Your task to perform on an android device: turn off location Image 0: 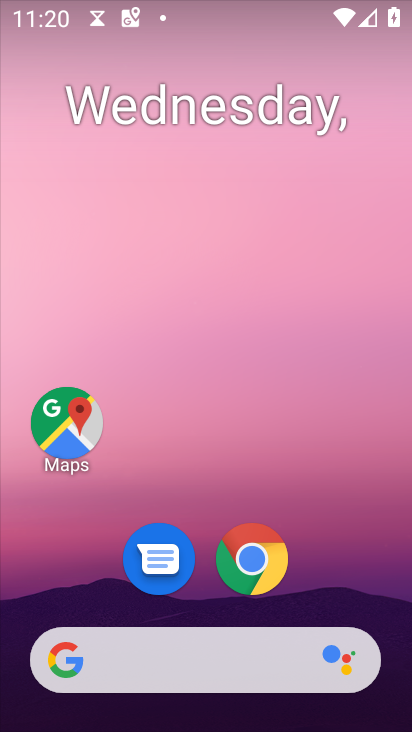
Step 0: drag from (378, 586) to (319, 245)
Your task to perform on an android device: turn off location Image 1: 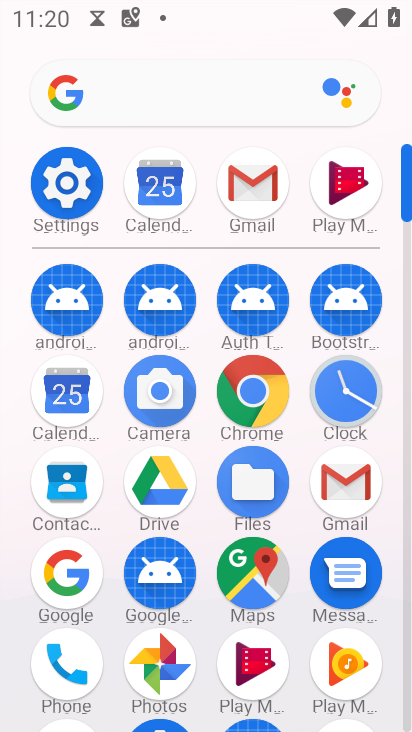
Step 1: click (75, 197)
Your task to perform on an android device: turn off location Image 2: 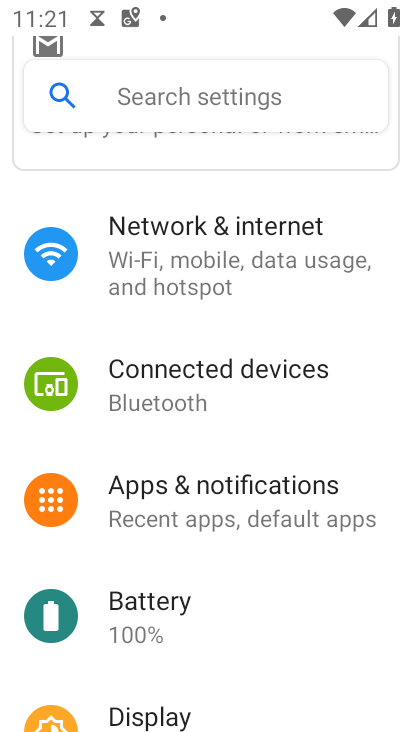
Step 2: drag from (229, 656) to (203, 370)
Your task to perform on an android device: turn off location Image 3: 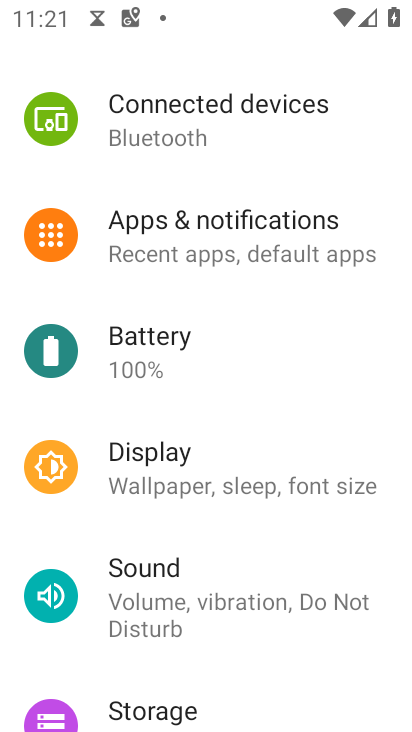
Step 3: drag from (271, 660) to (245, 308)
Your task to perform on an android device: turn off location Image 4: 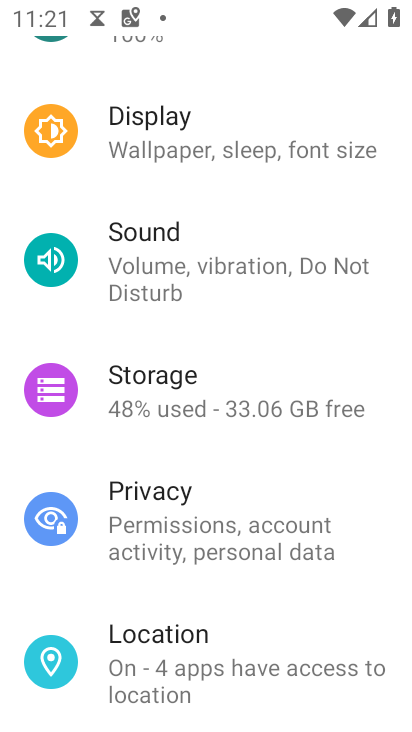
Step 4: click (295, 643)
Your task to perform on an android device: turn off location Image 5: 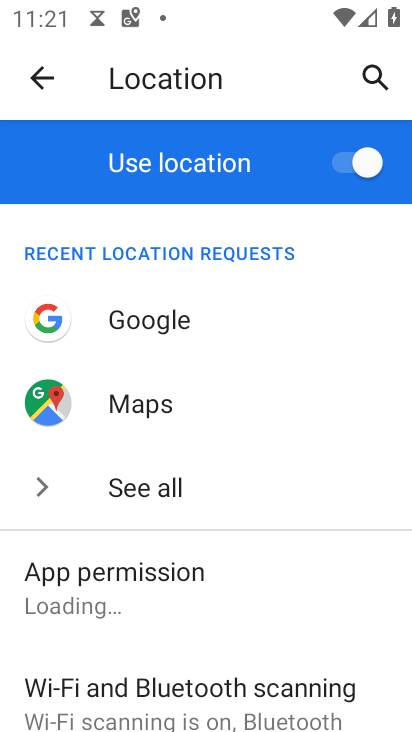
Step 5: click (343, 158)
Your task to perform on an android device: turn off location Image 6: 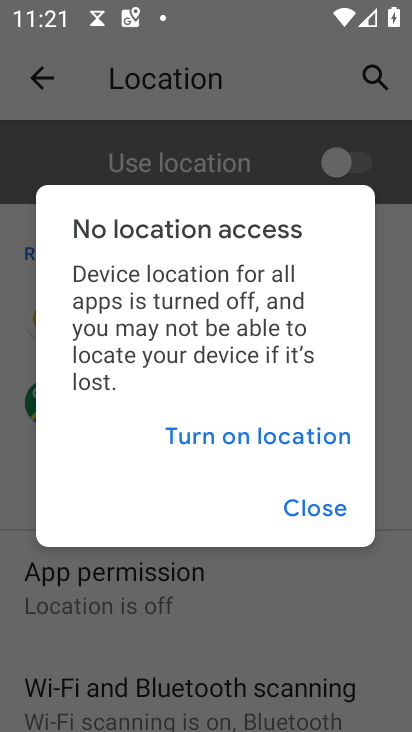
Step 6: task complete